Your task to perform on an android device: Search for pizza restaurants on Maps Image 0: 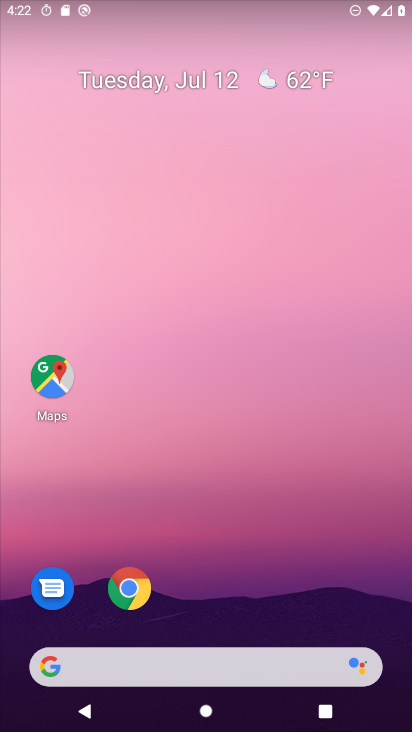
Step 0: click (46, 392)
Your task to perform on an android device: Search for pizza restaurants on Maps Image 1: 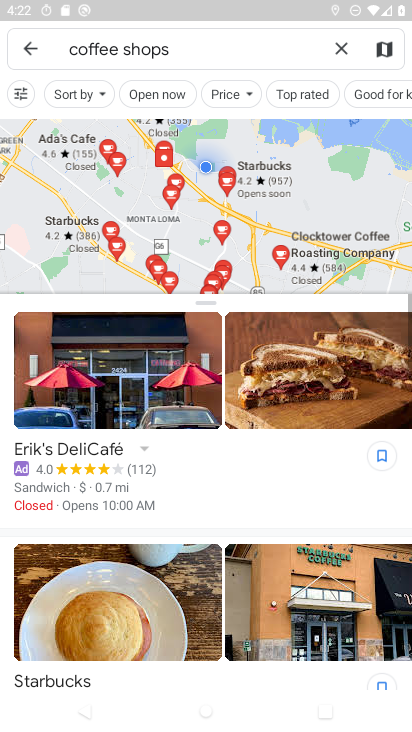
Step 1: click (340, 51)
Your task to perform on an android device: Search for pizza restaurants on Maps Image 2: 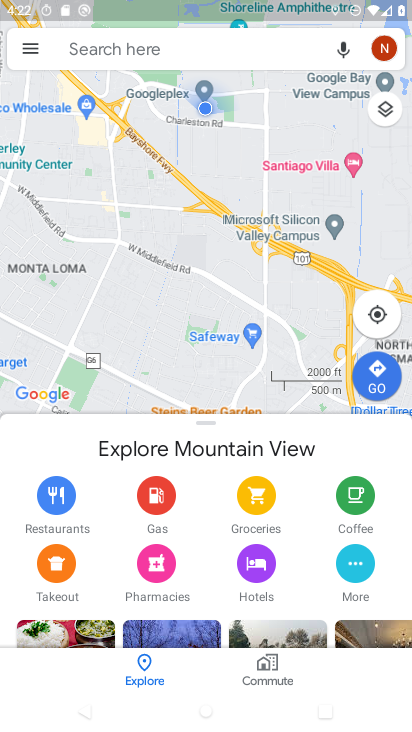
Step 2: click (188, 54)
Your task to perform on an android device: Search for pizza restaurants on Maps Image 3: 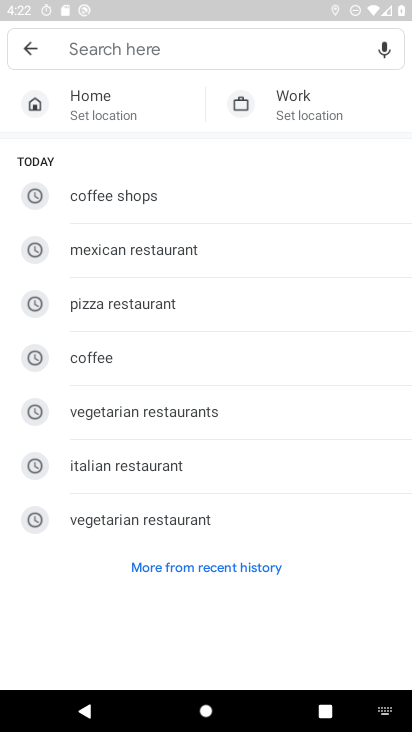
Step 3: type "pizza resy"
Your task to perform on an android device: Search for pizza restaurants on Maps Image 4: 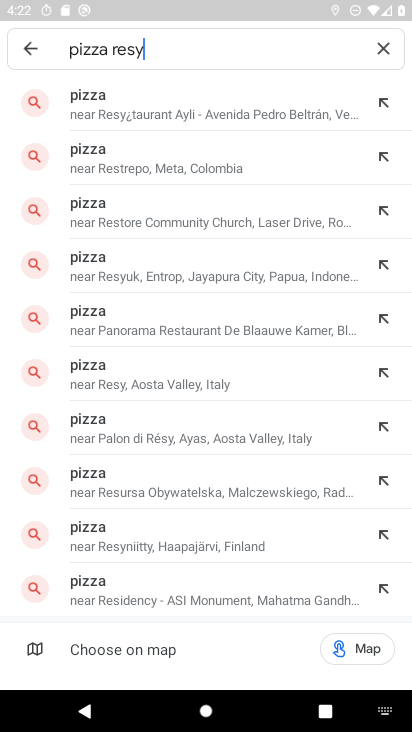
Step 4: click (140, 51)
Your task to perform on an android device: Search for pizza restaurants on Maps Image 5: 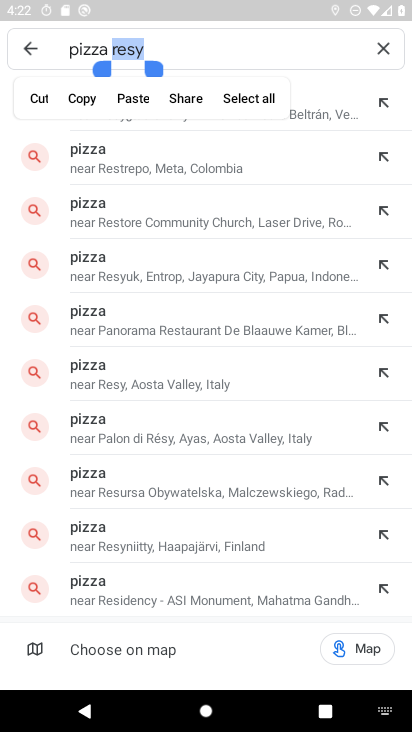
Step 5: type "restaurants"
Your task to perform on an android device: Search for pizza restaurants on Maps Image 6: 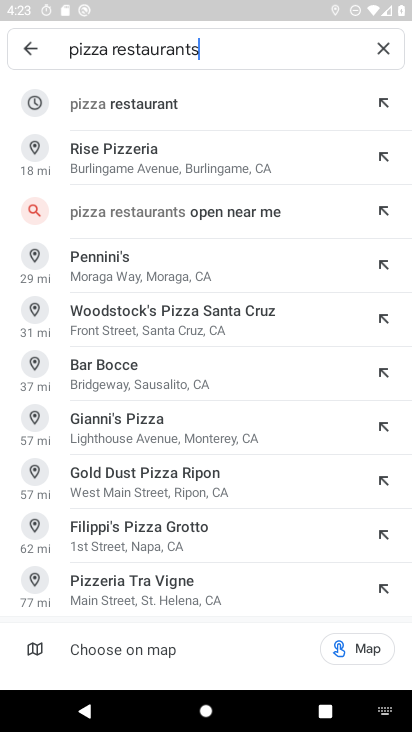
Step 6: click (158, 118)
Your task to perform on an android device: Search for pizza restaurants on Maps Image 7: 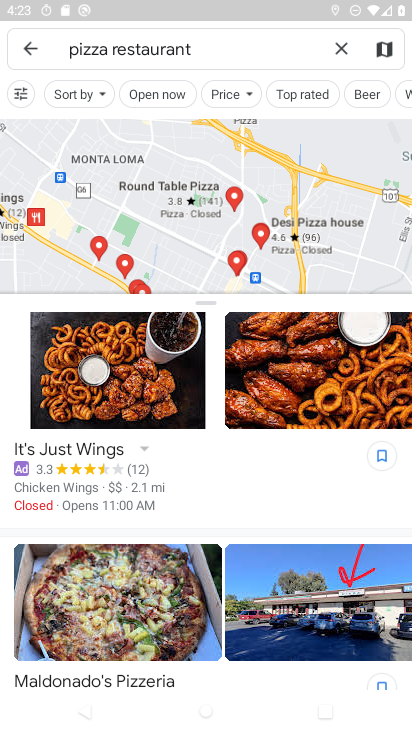
Step 7: task complete